Your task to perform on an android device: turn off wifi Image 0: 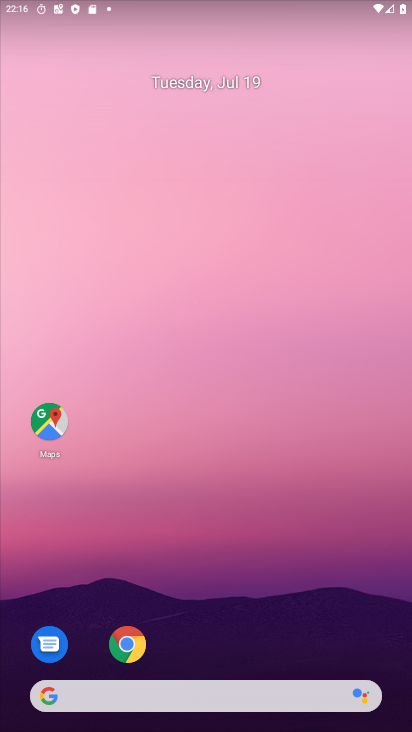
Step 0: press home button
Your task to perform on an android device: turn off wifi Image 1: 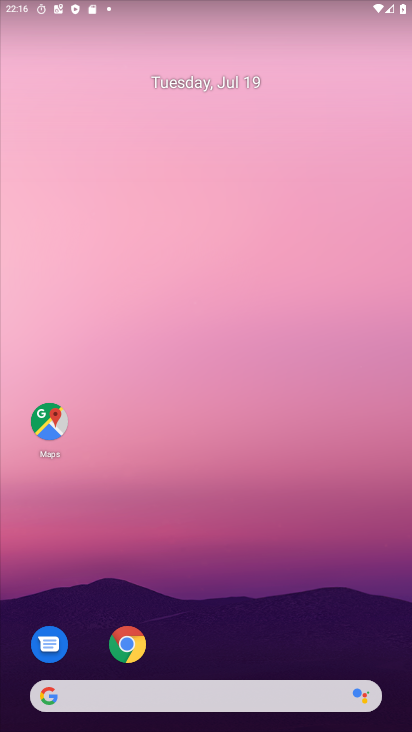
Step 1: drag from (359, 645) to (269, 57)
Your task to perform on an android device: turn off wifi Image 2: 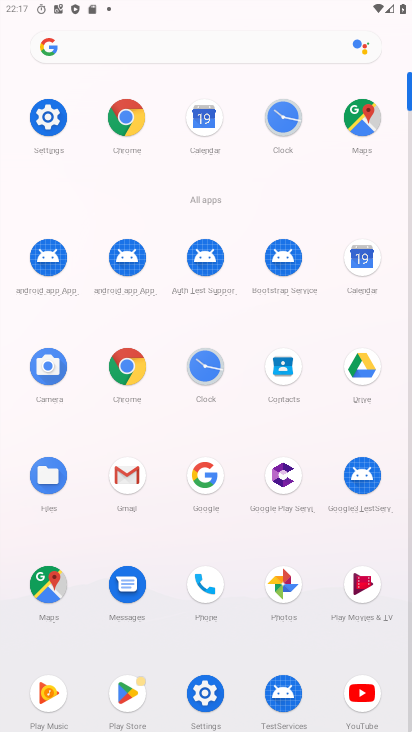
Step 2: drag from (273, 0) to (249, 704)
Your task to perform on an android device: turn off wifi Image 3: 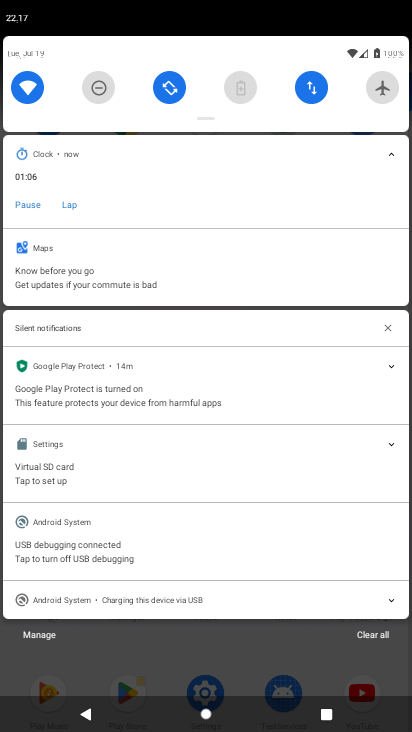
Step 3: click (28, 88)
Your task to perform on an android device: turn off wifi Image 4: 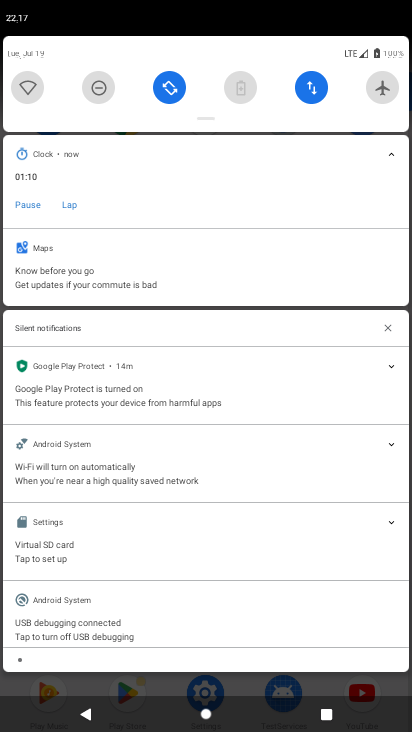
Step 4: task complete